Your task to perform on an android device: check battery use Image 0: 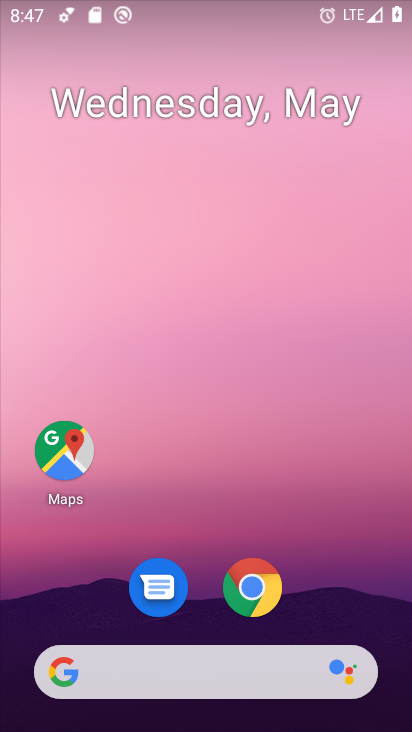
Step 0: drag from (205, 600) to (263, 113)
Your task to perform on an android device: check battery use Image 1: 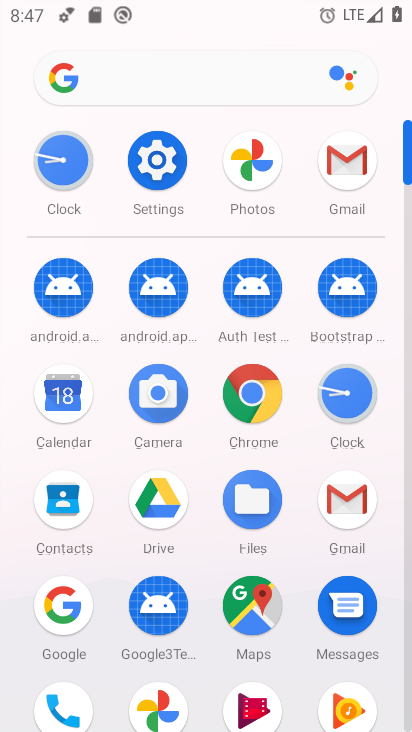
Step 1: click (176, 165)
Your task to perform on an android device: check battery use Image 2: 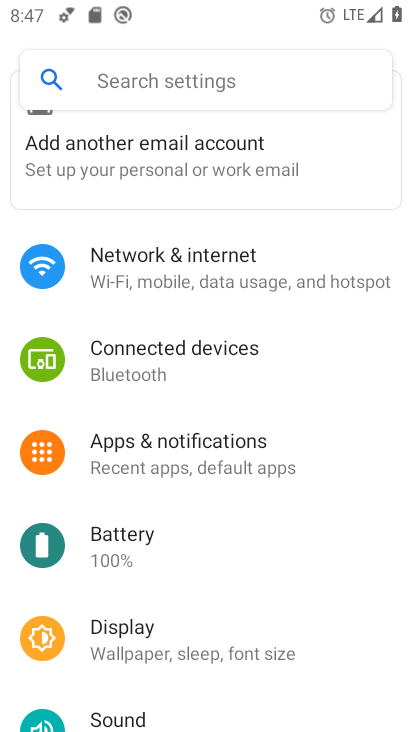
Step 2: click (140, 562)
Your task to perform on an android device: check battery use Image 3: 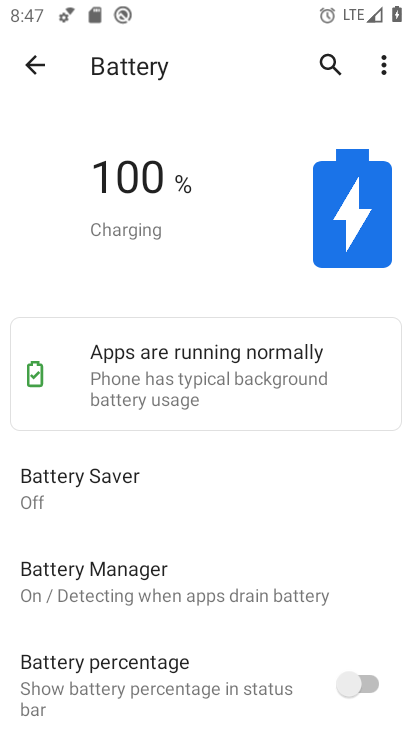
Step 3: click (378, 58)
Your task to perform on an android device: check battery use Image 4: 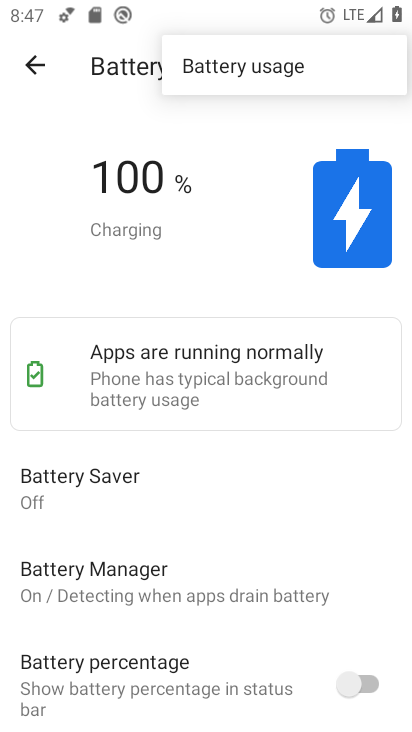
Step 4: click (313, 60)
Your task to perform on an android device: check battery use Image 5: 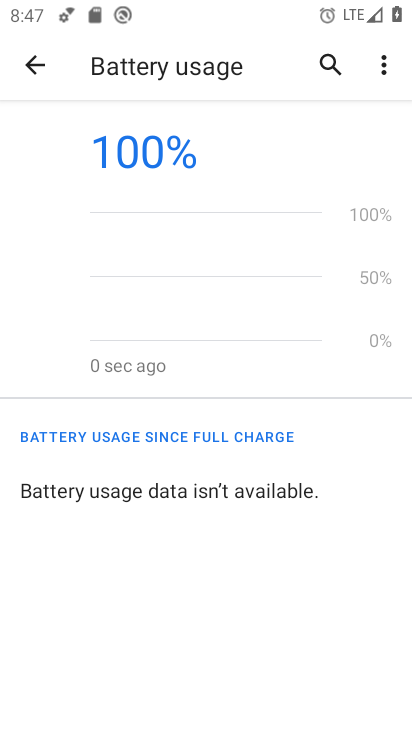
Step 5: task complete